Your task to perform on an android device: toggle location history Image 0: 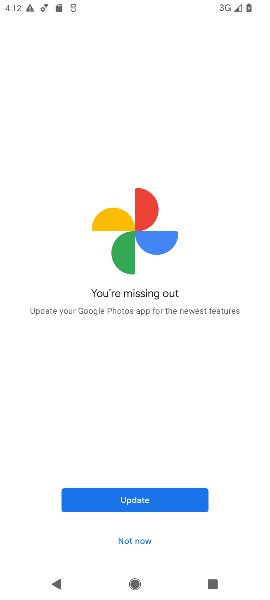
Step 0: press home button
Your task to perform on an android device: toggle location history Image 1: 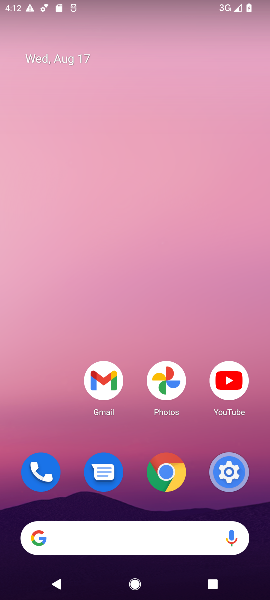
Step 1: click (231, 476)
Your task to perform on an android device: toggle location history Image 2: 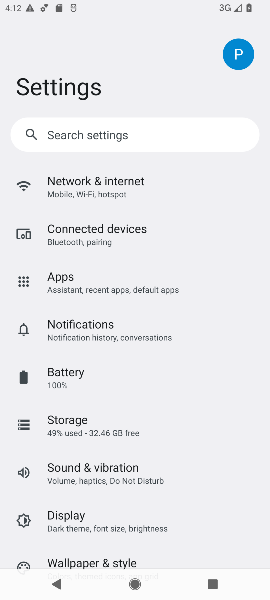
Step 2: drag from (119, 474) to (135, 308)
Your task to perform on an android device: toggle location history Image 3: 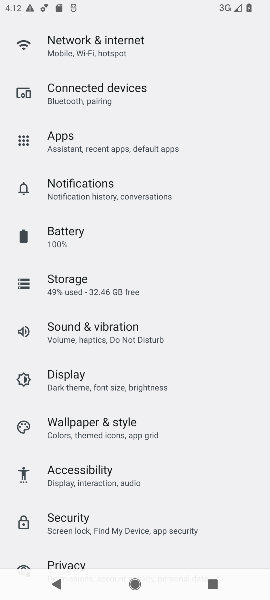
Step 3: drag from (102, 529) to (134, 331)
Your task to perform on an android device: toggle location history Image 4: 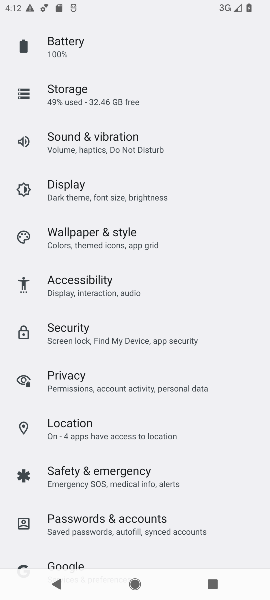
Step 4: click (90, 422)
Your task to perform on an android device: toggle location history Image 5: 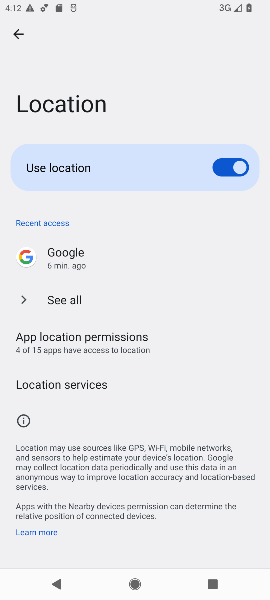
Step 5: click (62, 386)
Your task to perform on an android device: toggle location history Image 6: 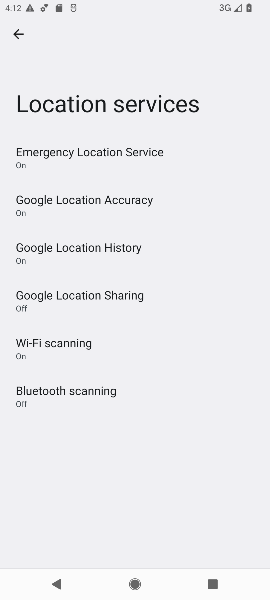
Step 6: click (60, 250)
Your task to perform on an android device: toggle location history Image 7: 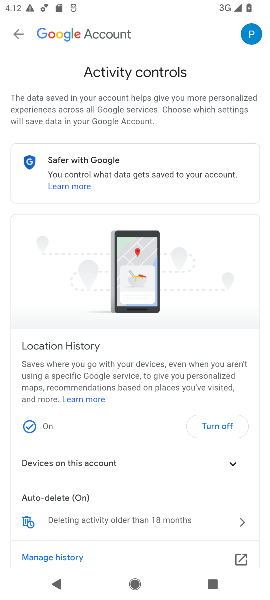
Step 7: click (218, 427)
Your task to perform on an android device: toggle location history Image 8: 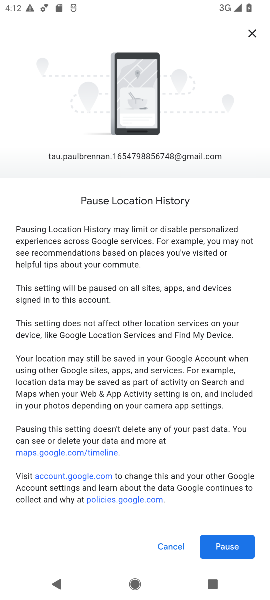
Step 8: click (235, 545)
Your task to perform on an android device: toggle location history Image 9: 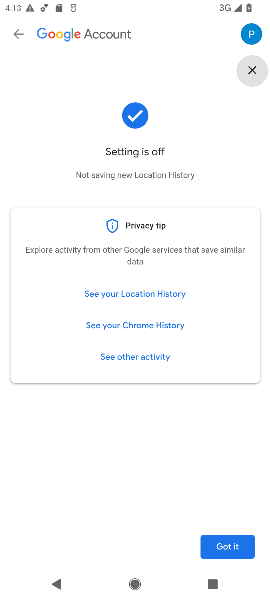
Step 9: click (232, 541)
Your task to perform on an android device: toggle location history Image 10: 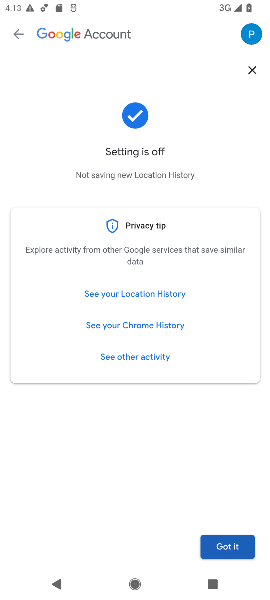
Step 10: click (230, 542)
Your task to perform on an android device: toggle location history Image 11: 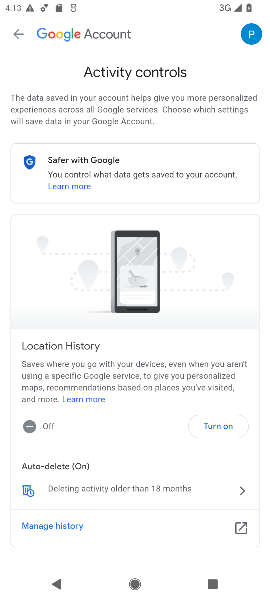
Step 11: task complete